Your task to perform on an android device: check battery use Image 0: 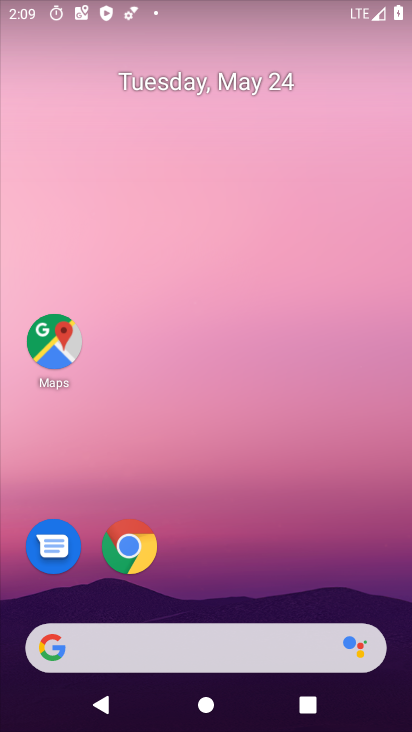
Step 0: drag from (213, 640) to (215, 126)
Your task to perform on an android device: check battery use Image 1: 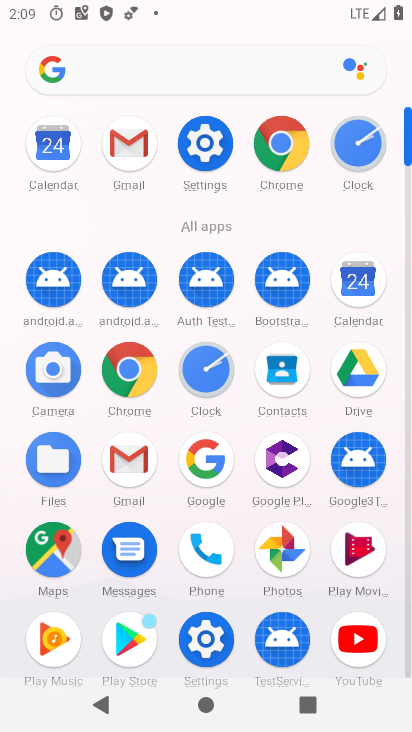
Step 1: click (219, 163)
Your task to perform on an android device: check battery use Image 2: 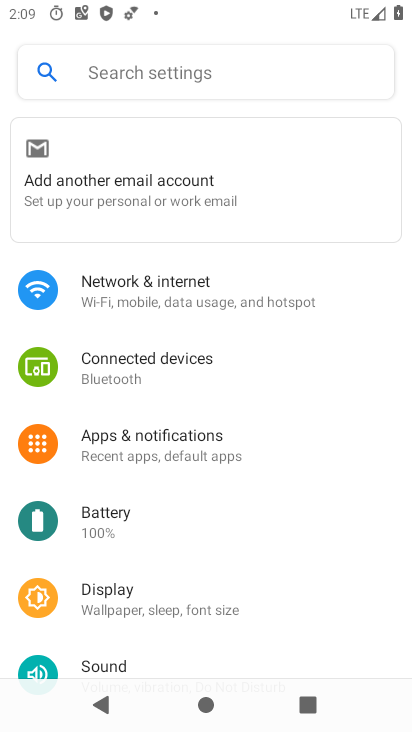
Step 2: click (134, 533)
Your task to perform on an android device: check battery use Image 3: 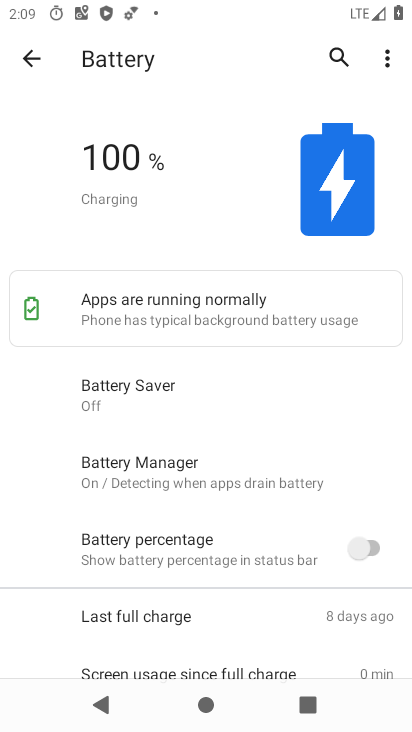
Step 3: click (386, 68)
Your task to perform on an android device: check battery use Image 4: 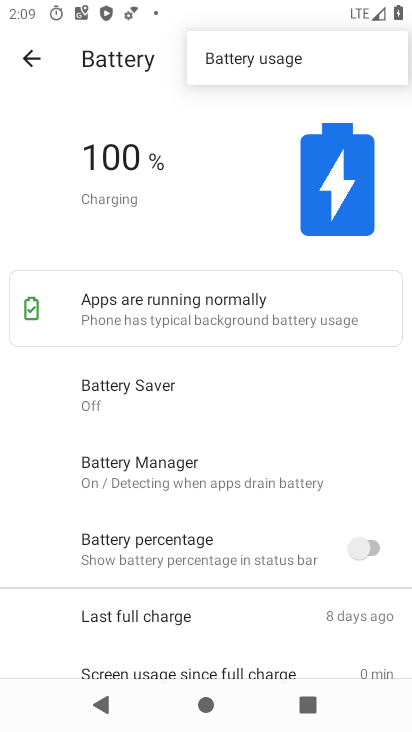
Step 4: click (280, 63)
Your task to perform on an android device: check battery use Image 5: 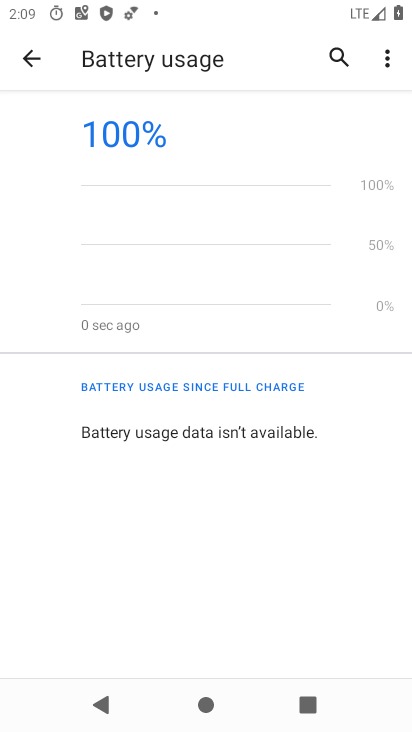
Step 5: task complete